Your task to perform on an android device: turn on notifications settings in the gmail app Image 0: 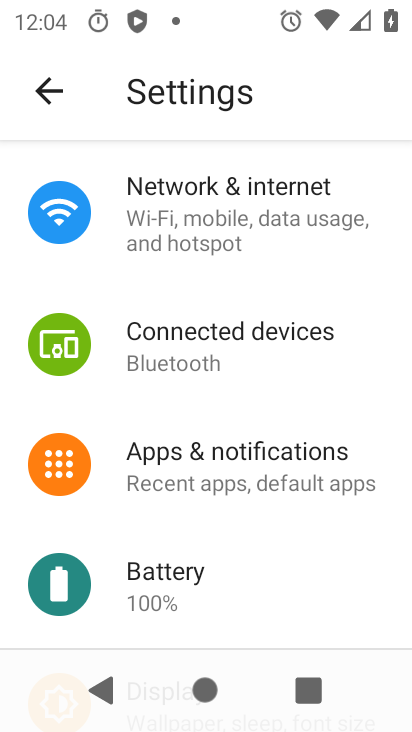
Step 0: press home button
Your task to perform on an android device: turn on notifications settings in the gmail app Image 1: 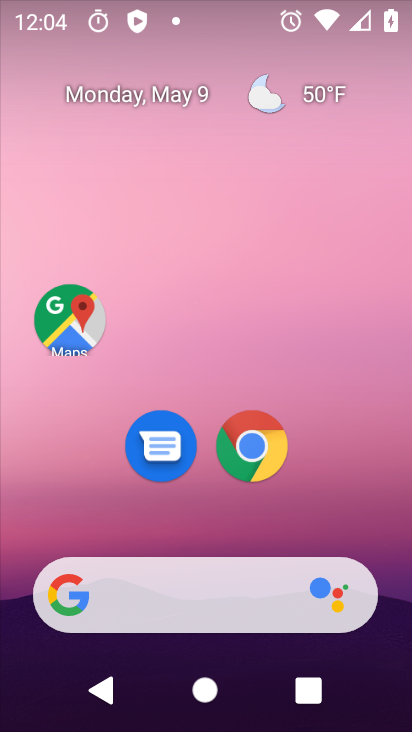
Step 1: drag from (323, 513) to (284, 27)
Your task to perform on an android device: turn on notifications settings in the gmail app Image 2: 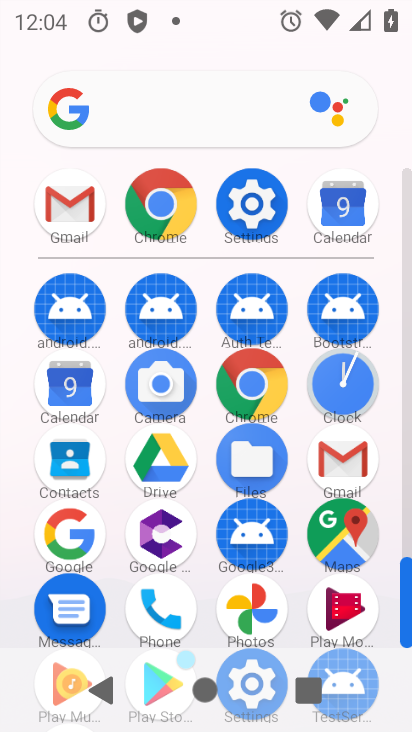
Step 2: click (336, 445)
Your task to perform on an android device: turn on notifications settings in the gmail app Image 3: 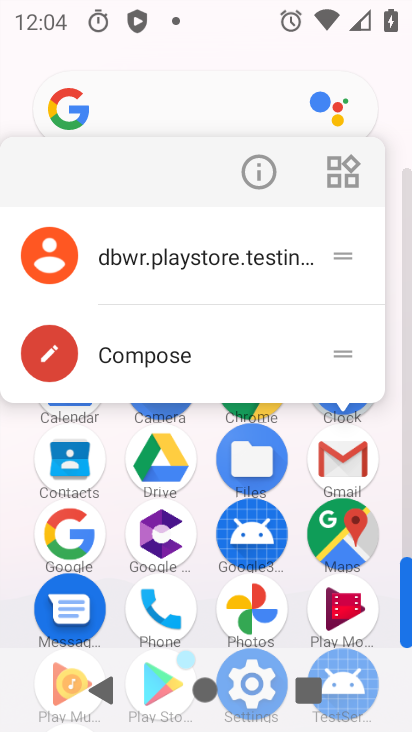
Step 3: click (317, 458)
Your task to perform on an android device: turn on notifications settings in the gmail app Image 4: 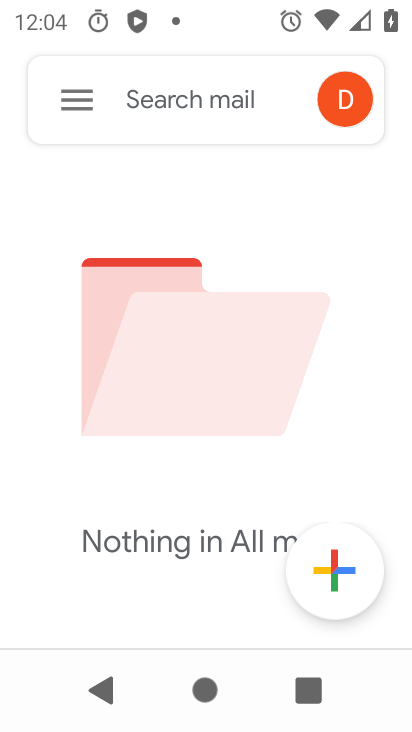
Step 4: click (73, 92)
Your task to perform on an android device: turn on notifications settings in the gmail app Image 5: 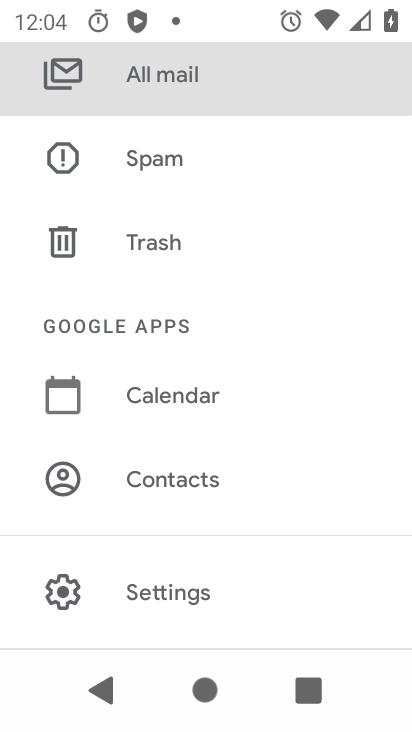
Step 5: click (167, 588)
Your task to perform on an android device: turn on notifications settings in the gmail app Image 6: 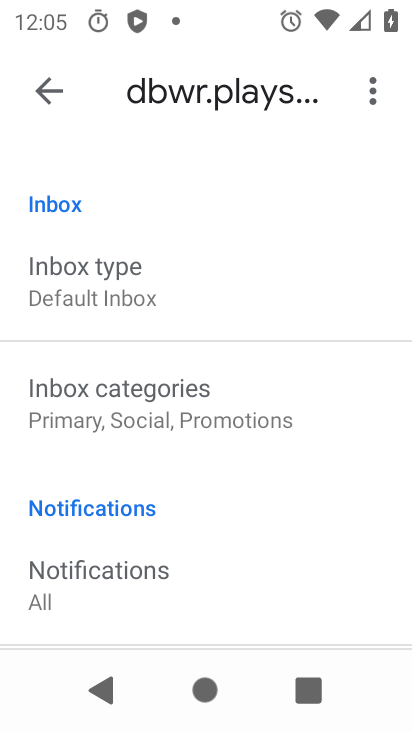
Step 6: drag from (146, 563) to (120, 473)
Your task to perform on an android device: turn on notifications settings in the gmail app Image 7: 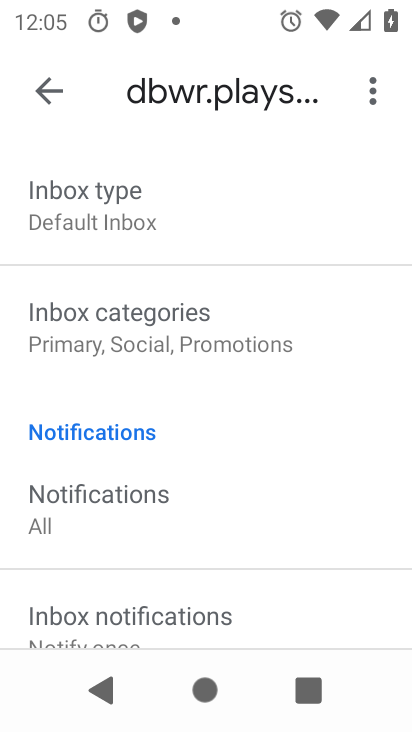
Step 7: drag from (129, 547) to (126, 485)
Your task to perform on an android device: turn on notifications settings in the gmail app Image 8: 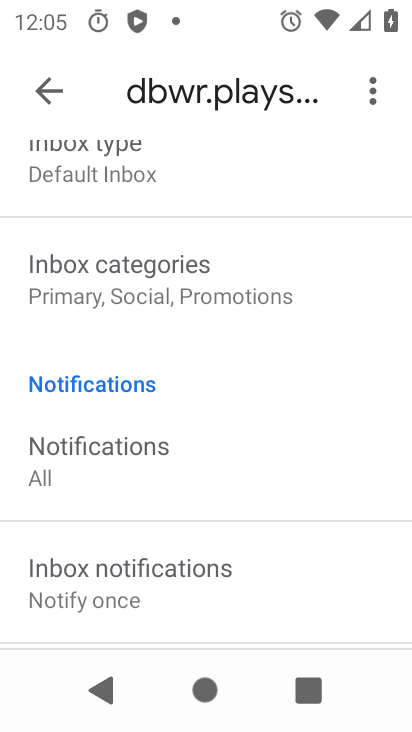
Step 8: drag from (139, 581) to (146, 444)
Your task to perform on an android device: turn on notifications settings in the gmail app Image 9: 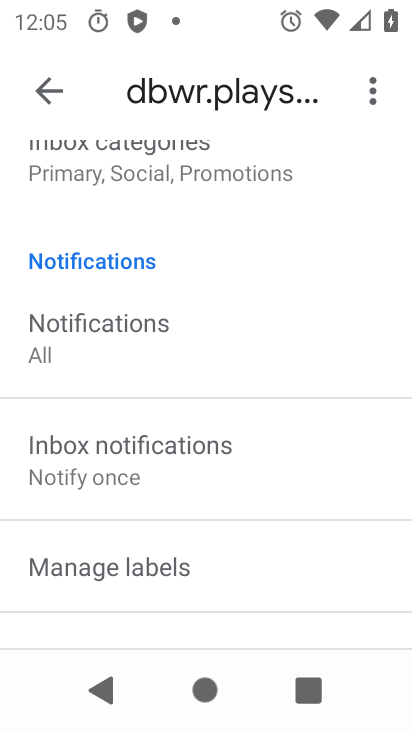
Step 9: drag from (156, 577) to (146, 430)
Your task to perform on an android device: turn on notifications settings in the gmail app Image 10: 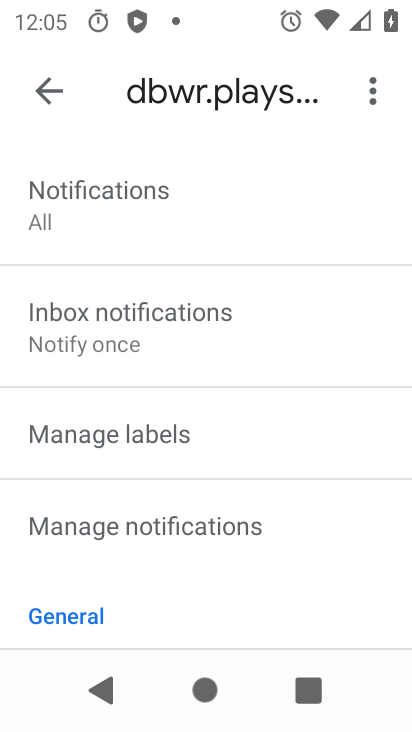
Step 10: click (145, 537)
Your task to perform on an android device: turn on notifications settings in the gmail app Image 11: 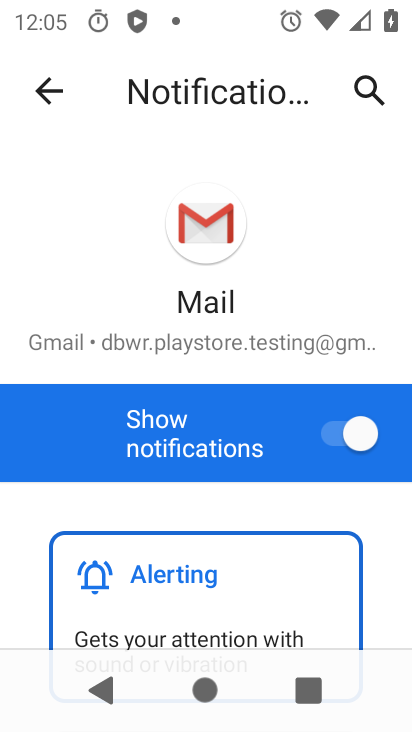
Step 11: task complete